Your task to perform on an android device: visit the assistant section in the google photos Image 0: 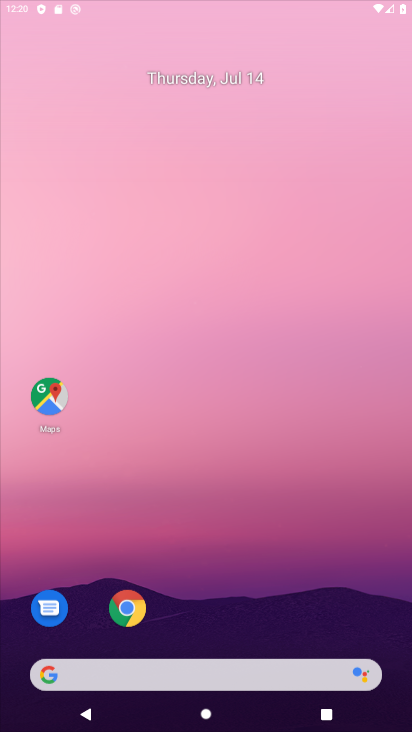
Step 0: click (245, 253)
Your task to perform on an android device: visit the assistant section in the google photos Image 1: 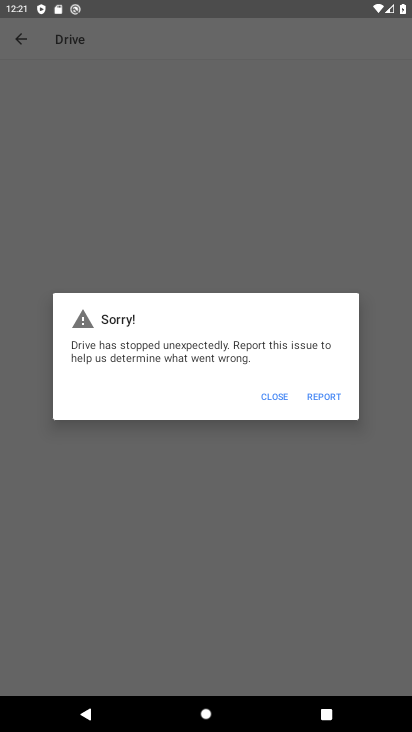
Step 1: press home button
Your task to perform on an android device: visit the assistant section in the google photos Image 2: 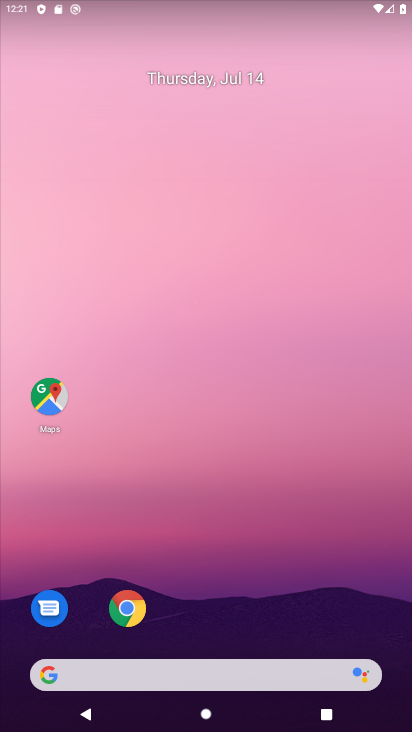
Step 2: drag from (174, 637) to (175, 271)
Your task to perform on an android device: visit the assistant section in the google photos Image 3: 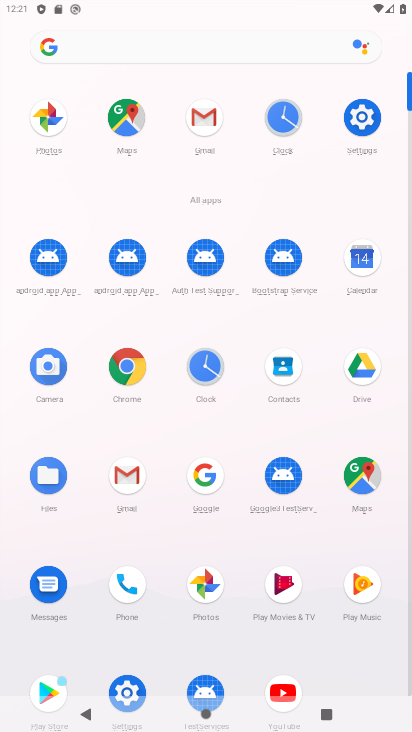
Step 3: click (210, 579)
Your task to perform on an android device: visit the assistant section in the google photos Image 4: 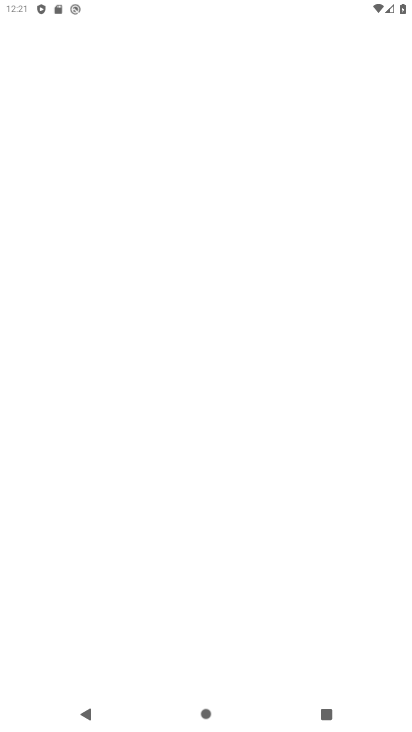
Step 4: drag from (227, 546) to (255, 416)
Your task to perform on an android device: visit the assistant section in the google photos Image 5: 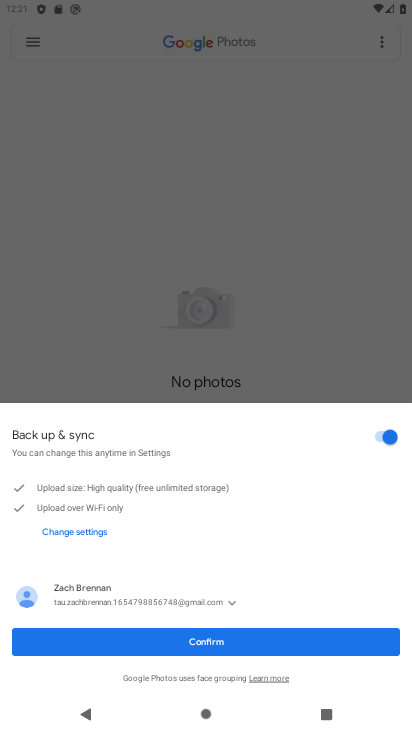
Step 5: drag from (194, 574) to (246, 274)
Your task to perform on an android device: visit the assistant section in the google photos Image 6: 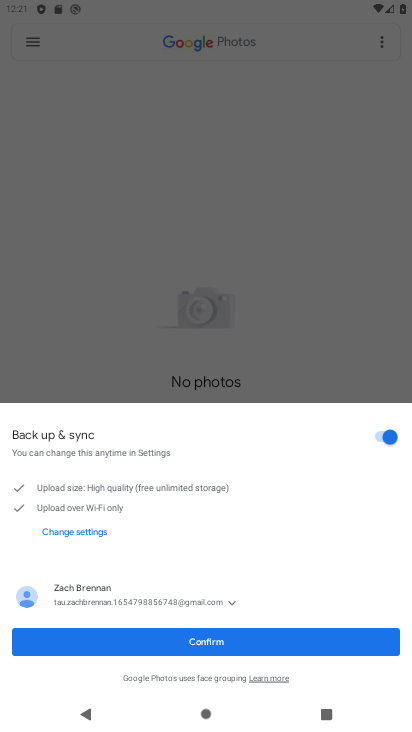
Step 6: click (202, 649)
Your task to perform on an android device: visit the assistant section in the google photos Image 7: 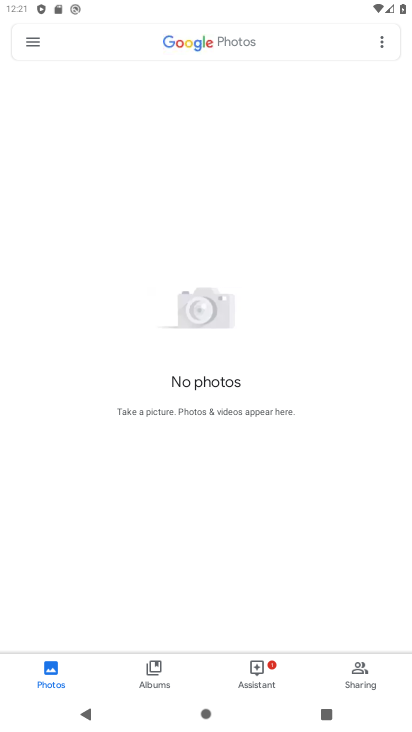
Step 7: click (271, 675)
Your task to perform on an android device: visit the assistant section in the google photos Image 8: 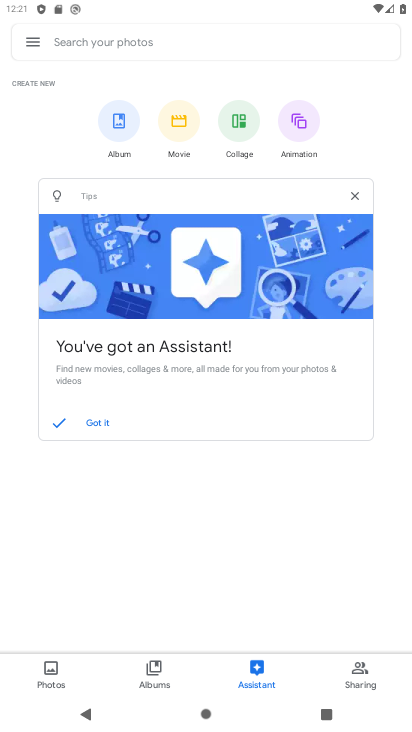
Step 8: task complete